Your task to perform on an android device: Open accessibility settings Image 0: 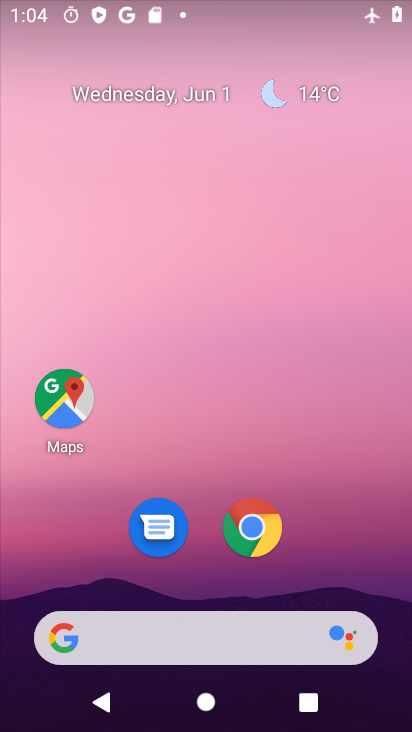
Step 0: drag from (190, 668) to (230, 145)
Your task to perform on an android device: Open accessibility settings Image 1: 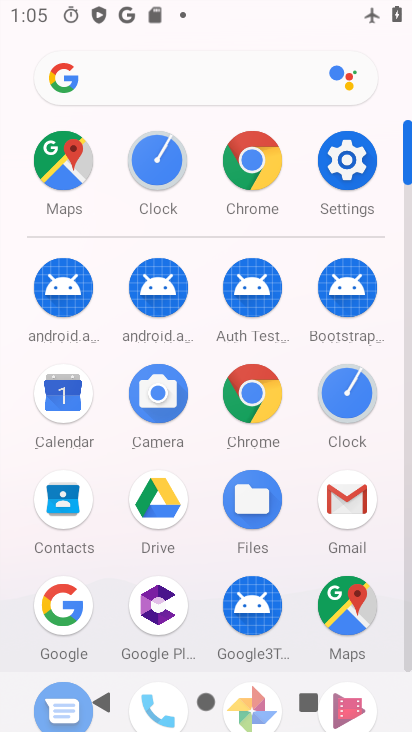
Step 1: click (359, 179)
Your task to perform on an android device: Open accessibility settings Image 2: 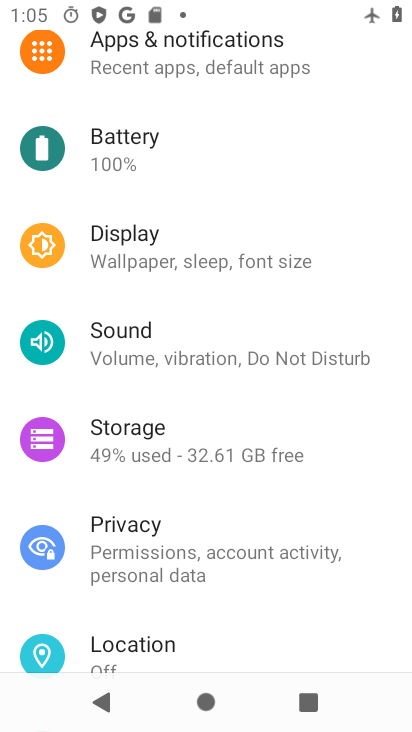
Step 2: drag from (165, 534) to (218, 224)
Your task to perform on an android device: Open accessibility settings Image 3: 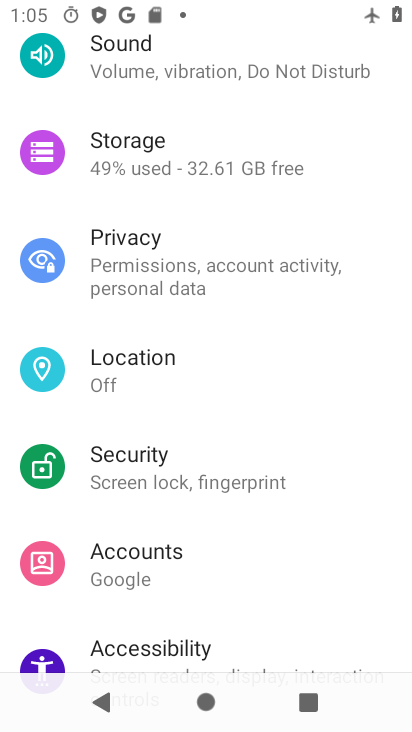
Step 3: click (178, 643)
Your task to perform on an android device: Open accessibility settings Image 4: 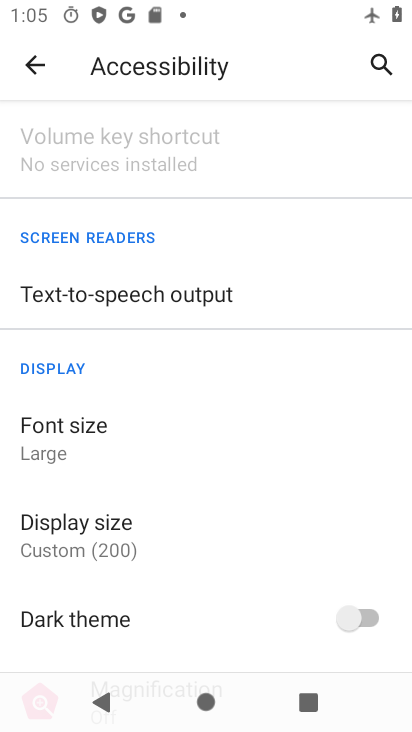
Step 4: task complete